Your task to perform on an android device: Open network settings Image 0: 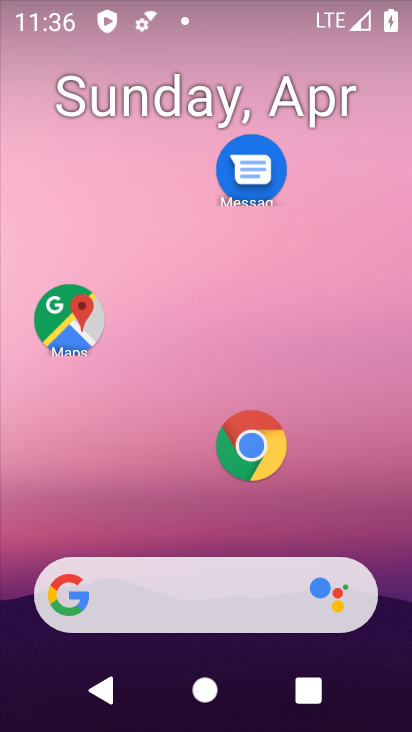
Step 0: drag from (184, 579) to (350, 36)
Your task to perform on an android device: Open network settings Image 1: 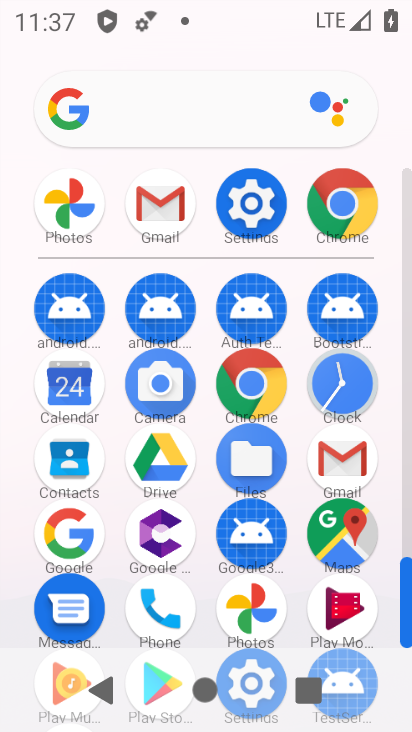
Step 1: click (255, 199)
Your task to perform on an android device: Open network settings Image 2: 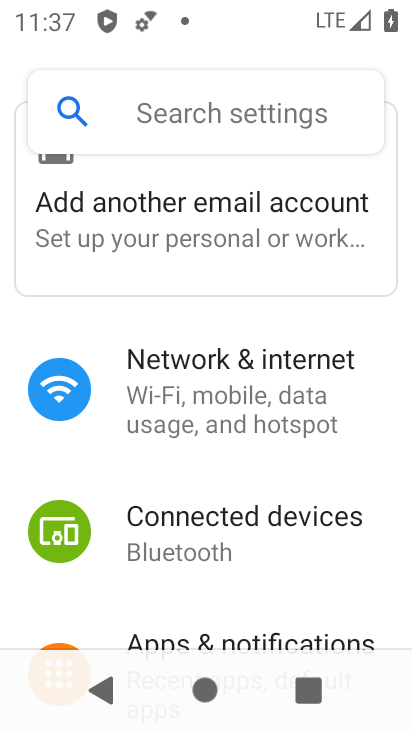
Step 2: click (217, 376)
Your task to perform on an android device: Open network settings Image 3: 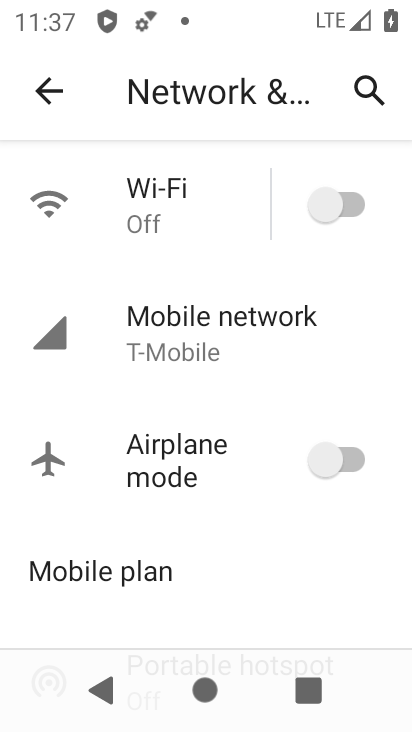
Step 3: task complete